Your task to perform on an android device: turn off smart reply in the gmail app Image 0: 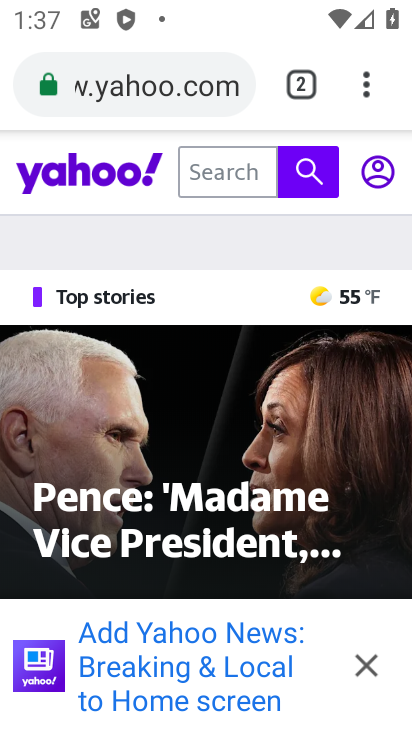
Step 0: press home button
Your task to perform on an android device: turn off smart reply in the gmail app Image 1: 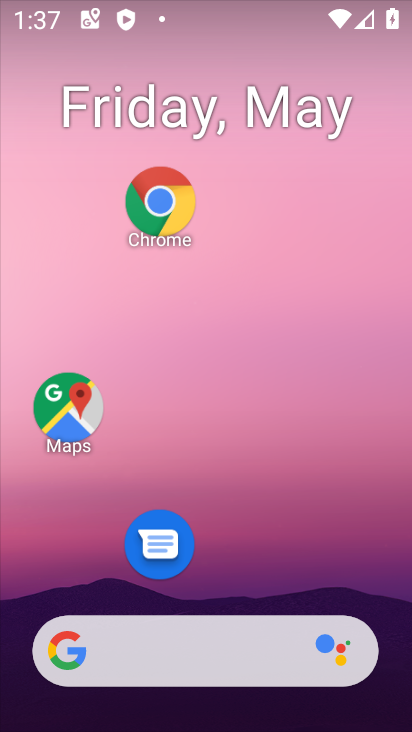
Step 1: drag from (222, 504) to (196, 140)
Your task to perform on an android device: turn off smart reply in the gmail app Image 2: 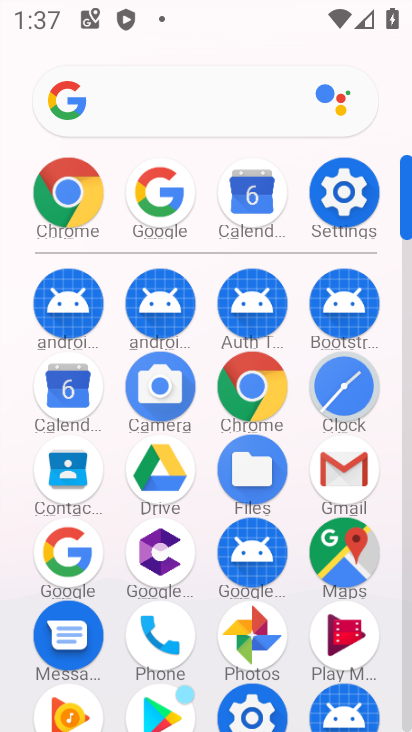
Step 2: click (353, 493)
Your task to perform on an android device: turn off smart reply in the gmail app Image 3: 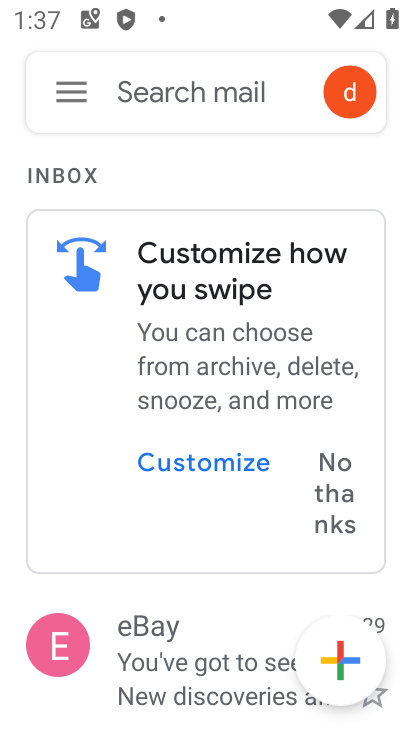
Step 3: click (84, 101)
Your task to perform on an android device: turn off smart reply in the gmail app Image 4: 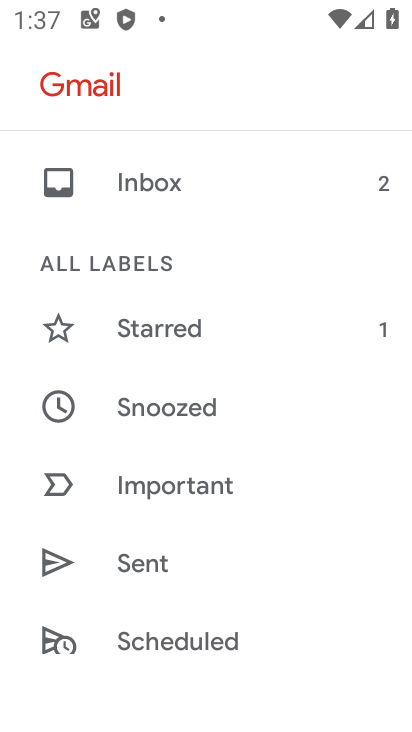
Step 4: drag from (160, 592) to (139, 233)
Your task to perform on an android device: turn off smart reply in the gmail app Image 5: 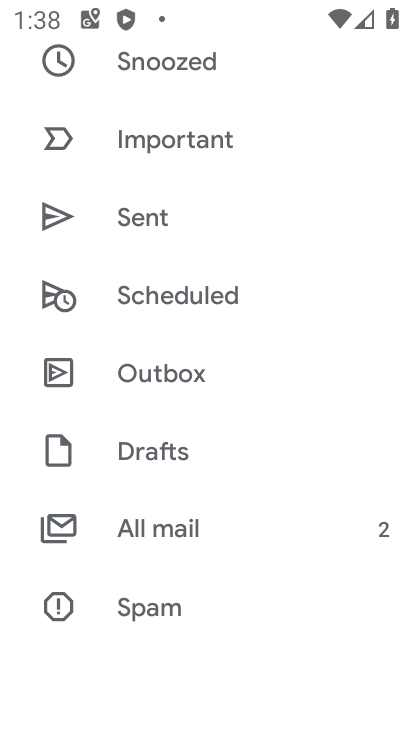
Step 5: drag from (189, 527) to (165, 234)
Your task to perform on an android device: turn off smart reply in the gmail app Image 6: 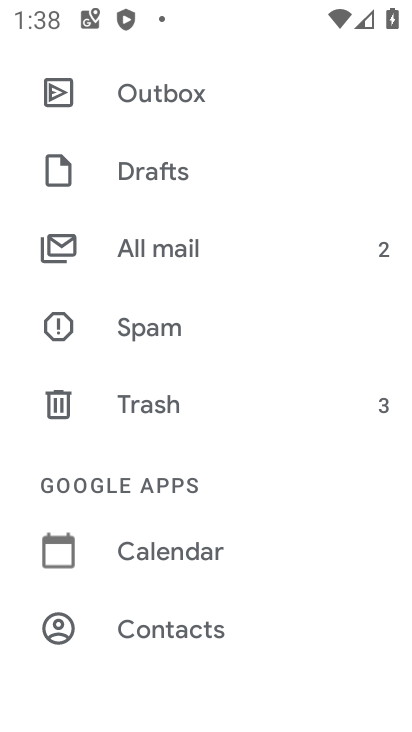
Step 6: drag from (162, 543) to (135, 239)
Your task to perform on an android device: turn off smart reply in the gmail app Image 7: 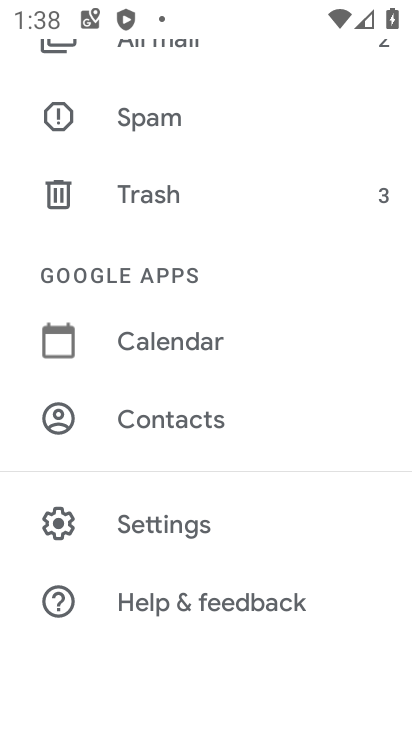
Step 7: click (157, 535)
Your task to perform on an android device: turn off smart reply in the gmail app Image 8: 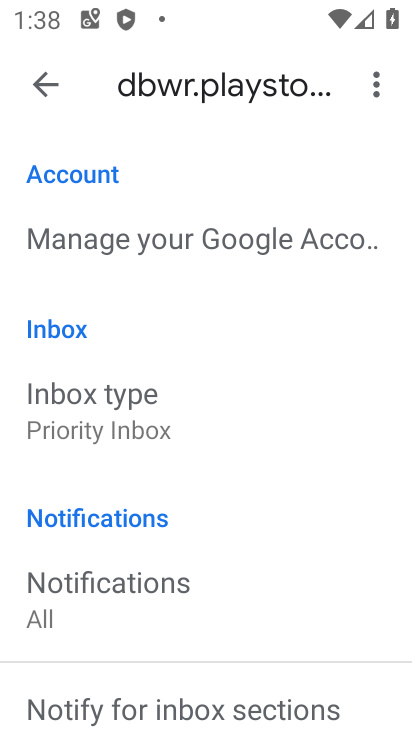
Step 8: drag from (220, 595) to (216, 432)
Your task to perform on an android device: turn off smart reply in the gmail app Image 9: 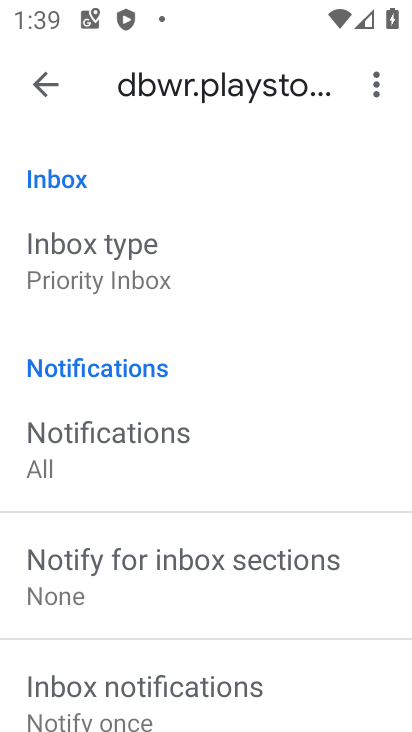
Step 9: drag from (238, 647) to (199, 116)
Your task to perform on an android device: turn off smart reply in the gmail app Image 10: 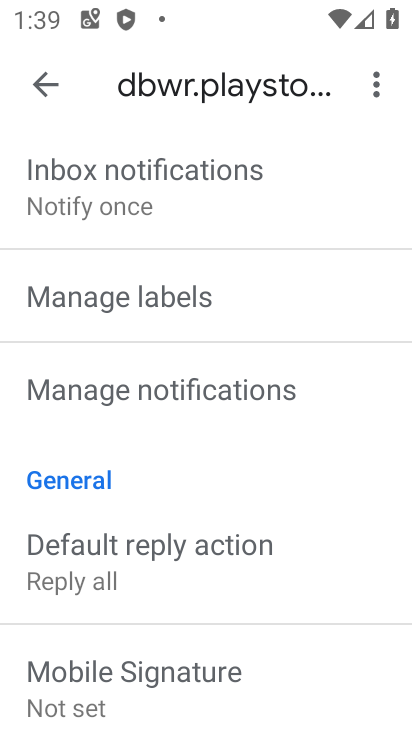
Step 10: drag from (224, 604) to (193, 148)
Your task to perform on an android device: turn off smart reply in the gmail app Image 11: 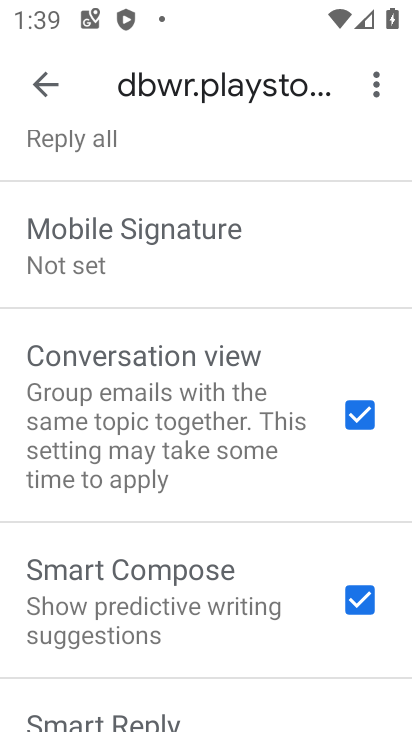
Step 11: drag from (191, 641) to (175, 377)
Your task to perform on an android device: turn off smart reply in the gmail app Image 12: 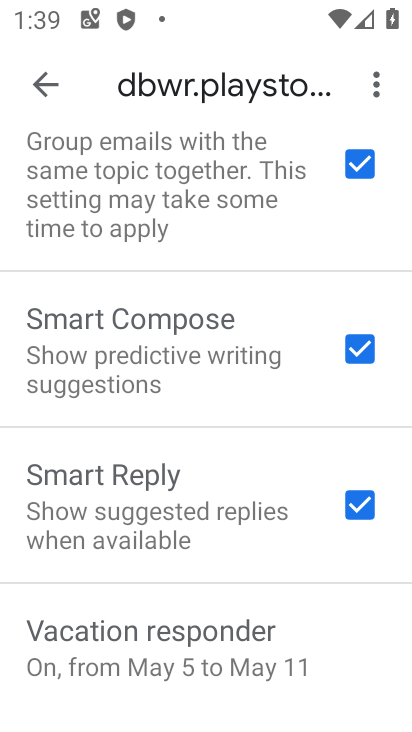
Step 12: click (349, 517)
Your task to perform on an android device: turn off smart reply in the gmail app Image 13: 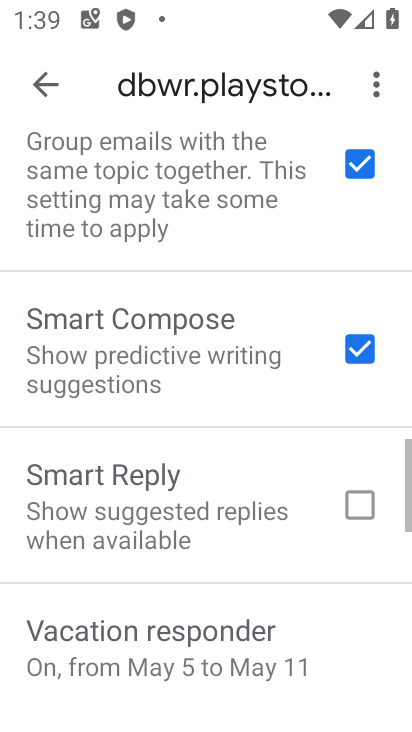
Step 13: task complete